Your task to perform on an android device: Search for vegetarian restaurants on Maps Image 0: 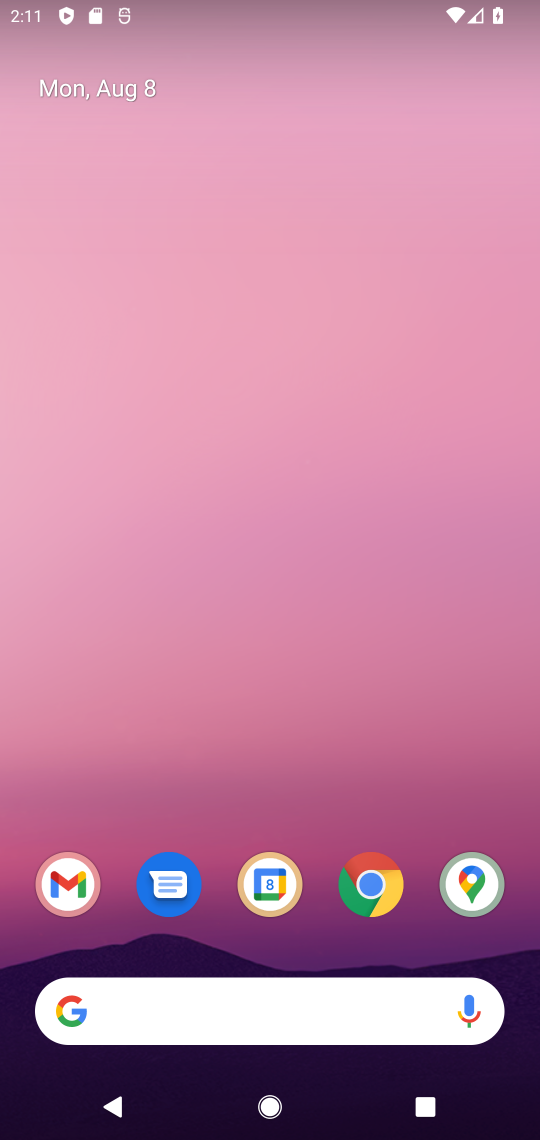
Step 0: click (473, 884)
Your task to perform on an android device: Search for vegetarian restaurants on Maps Image 1: 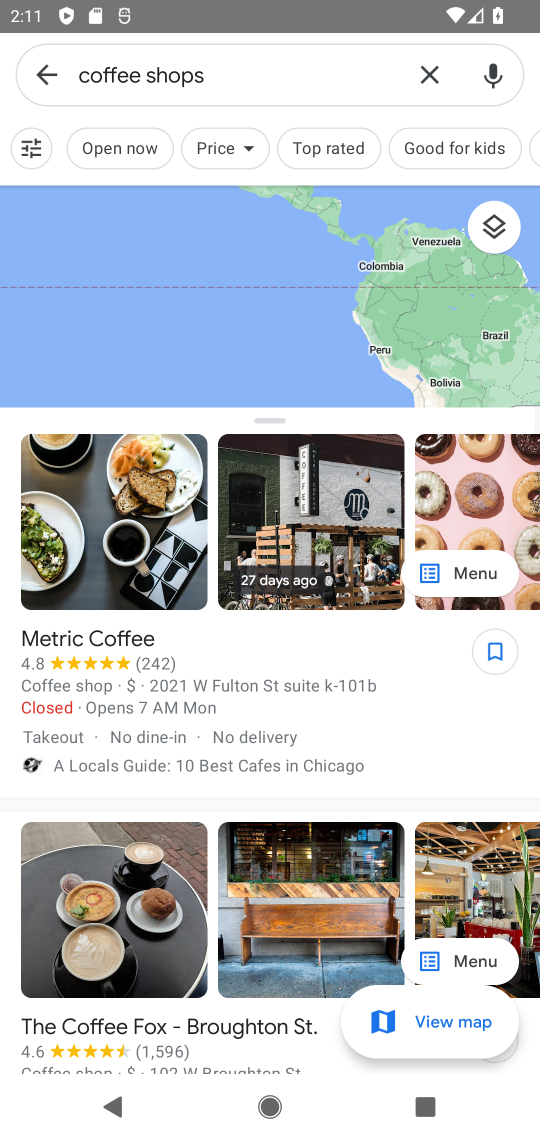
Step 1: click (429, 73)
Your task to perform on an android device: Search for vegetarian restaurants on Maps Image 2: 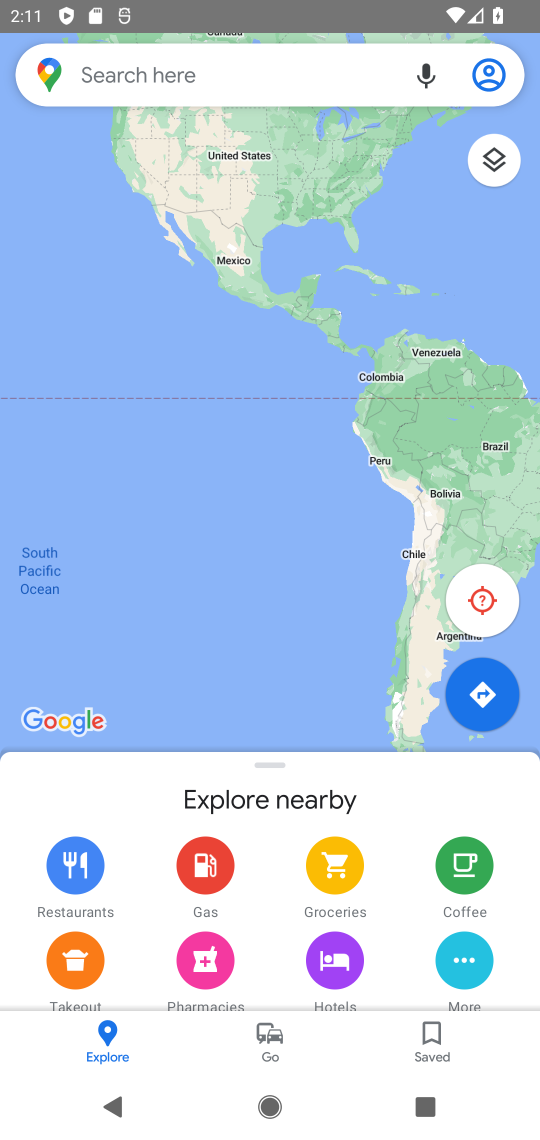
Step 2: click (261, 63)
Your task to perform on an android device: Search for vegetarian restaurants on Maps Image 3: 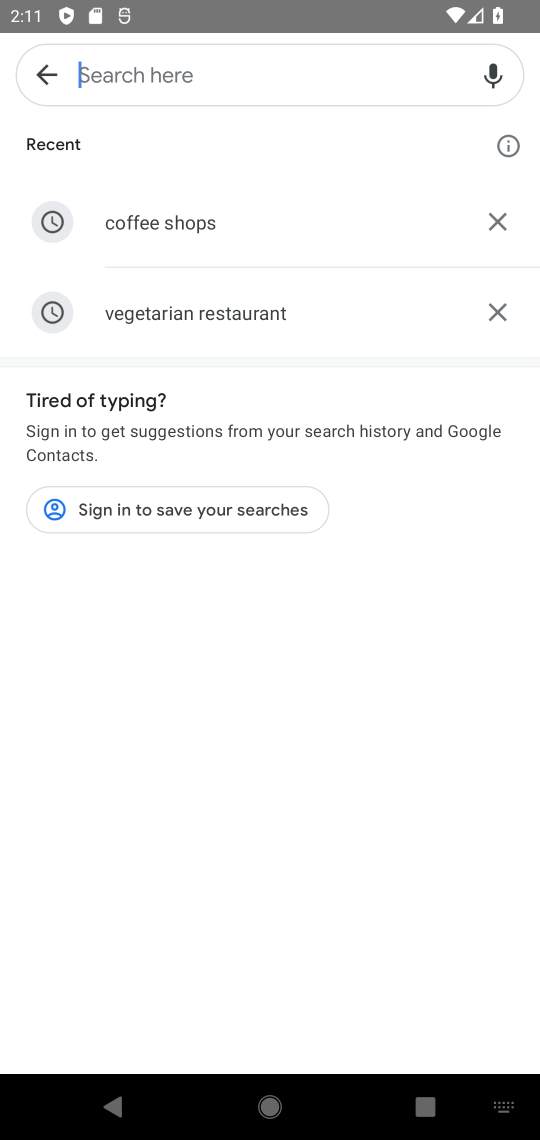
Step 3: click (257, 313)
Your task to perform on an android device: Search for vegetarian restaurants on Maps Image 4: 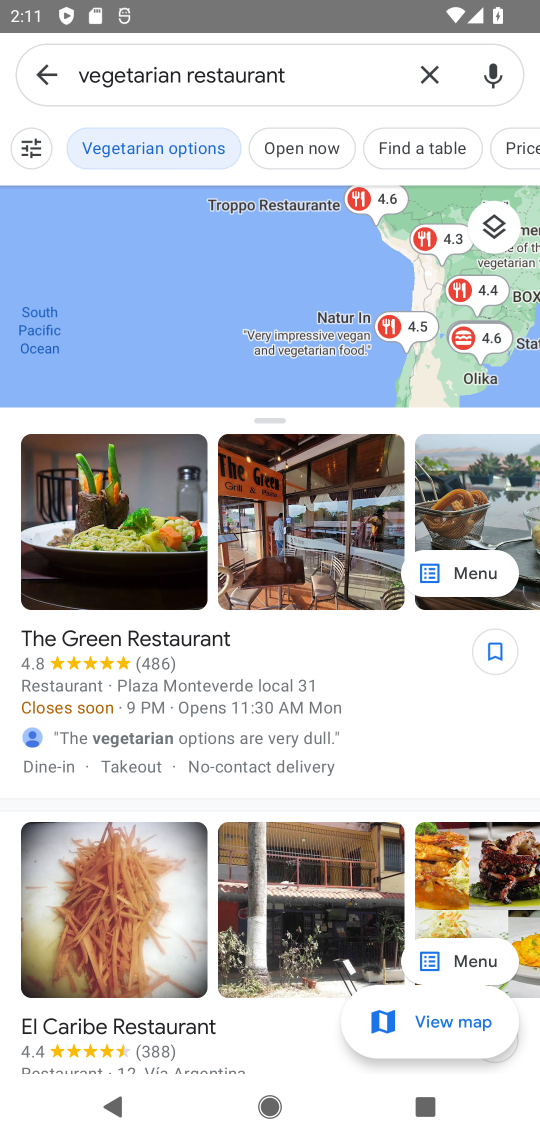
Step 4: task complete